Your task to perform on an android device: turn on notifications settings in the gmail app Image 0: 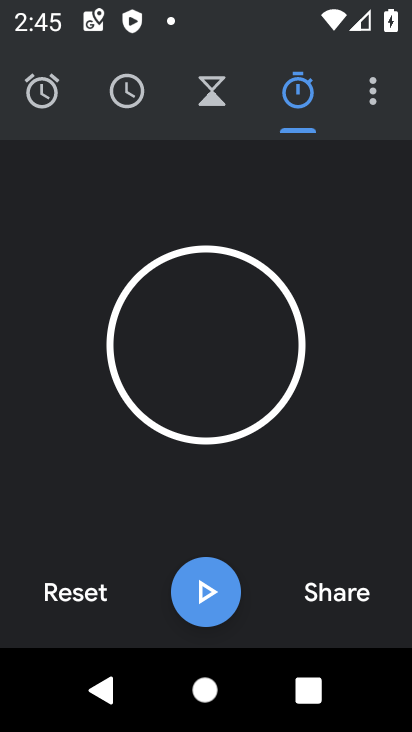
Step 0: press back button
Your task to perform on an android device: turn on notifications settings in the gmail app Image 1: 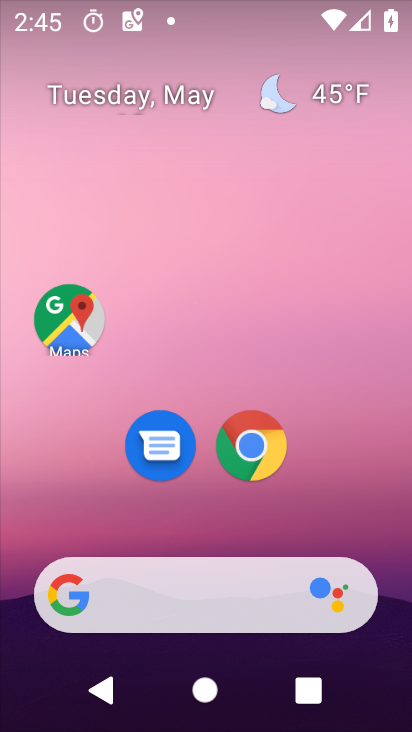
Step 1: drag from (191, 516) to (209, 96)
Your task to perform on an android device: turn on notifications settings in the gmail app Image 2: 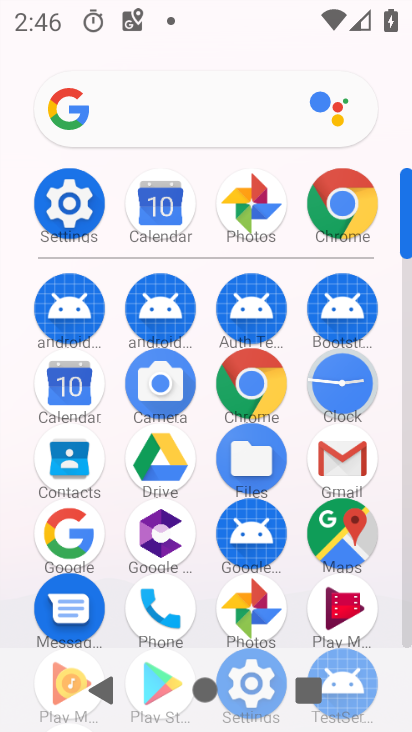
Step 2: click (79, 211)
Your task to perform on an android device: turn on notifications settings in the gmail app Image 3: 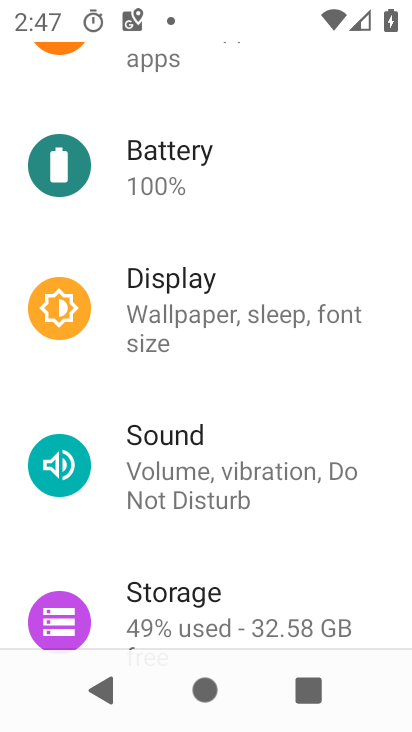
Step 3: drag from (246, 216) to (247, 658)
Your task to perform on an android device: turn on notifications settings in the gmail app Image 4: 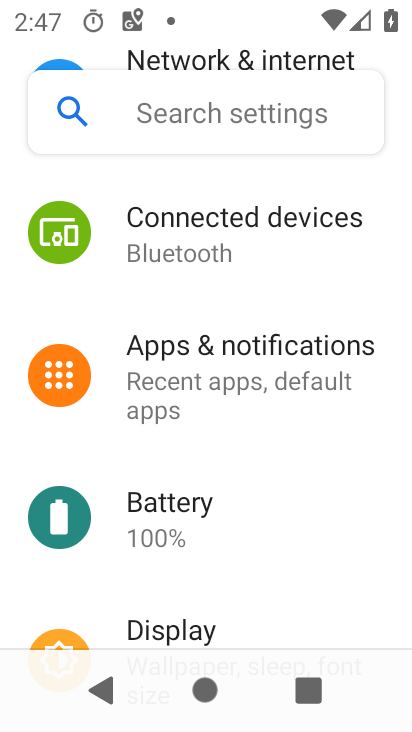
Step 4: press home button
Your task to perform on an android device: turn on notifications settings in the gmail app Image 5: 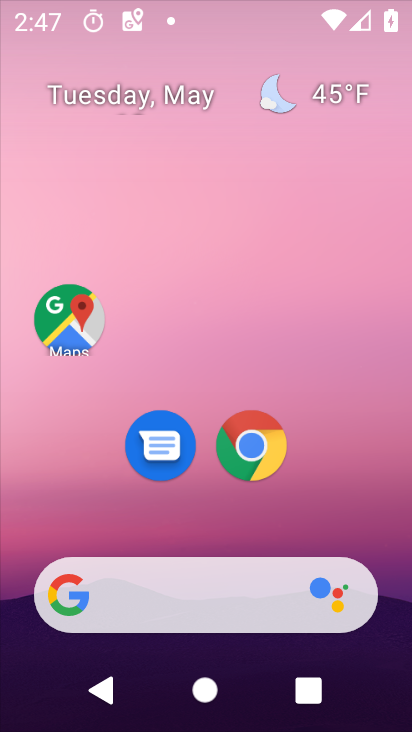
Step 5: drag from (200, 538) to (366, 81)
Your task to perform on an android device: turn on notifications settings in the gmail app Image 6: 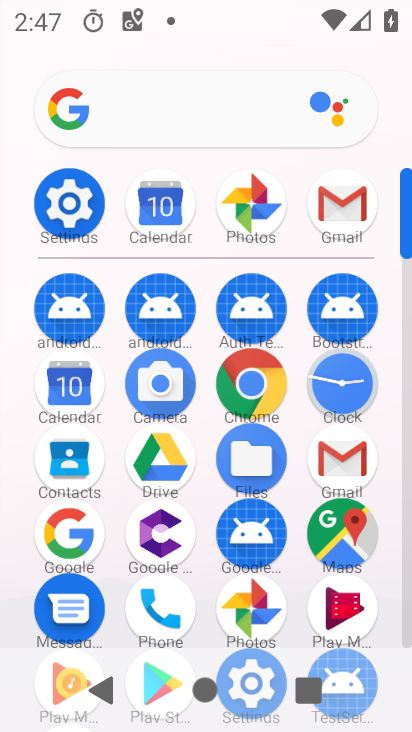
Step 6: click (340, 207)
Your task to perform on an android device: turn on notifications settings in the gmail app Image 7: 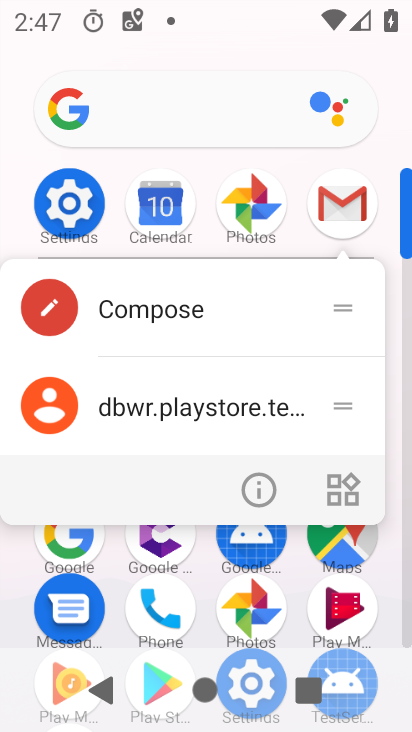
Step 7: click (258, 501)
Your task to perform on an android device: turn on notifications settings in the gmail app Image 8: 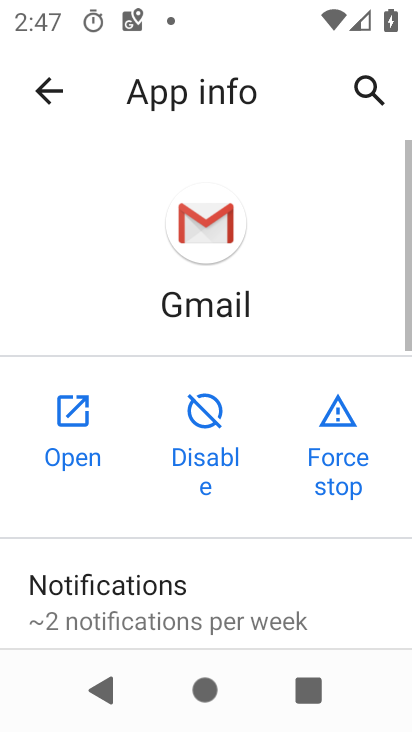
Step 8: click (175, 613)
Your task to perform on an android device: turn on notifications settings in the gmail app Image 9: 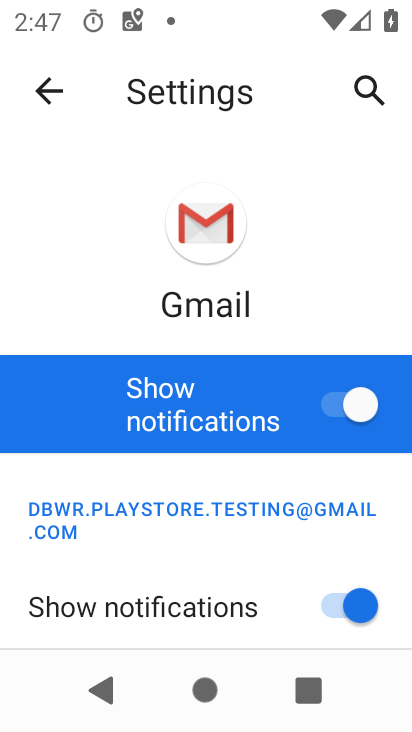
Step 9: task complete